Your task to perform on an android device: Open Android settings Image 0: 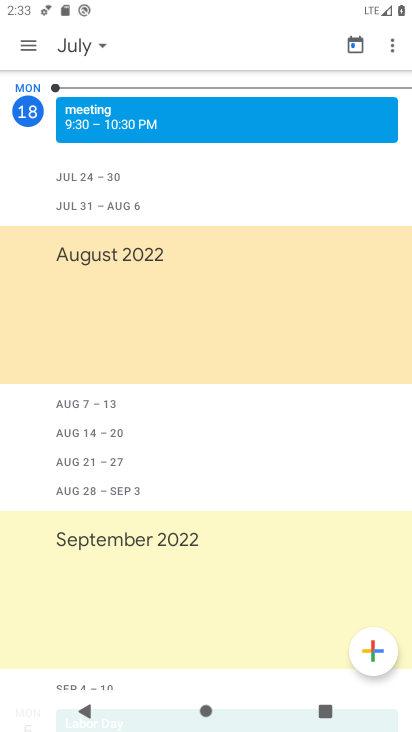
Step 0: press home button
Your task to perform on an android device: Open Android settings Image 1: 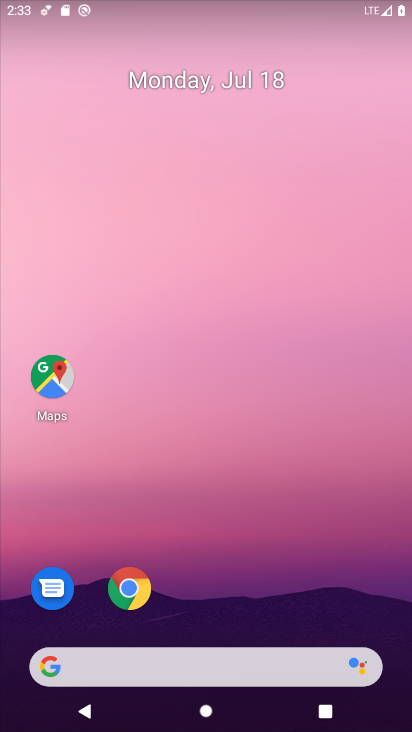
Step 1: drag from (310, 598) to (243, 142)
Your task to perform on an android device: Open Android settings Image 2: 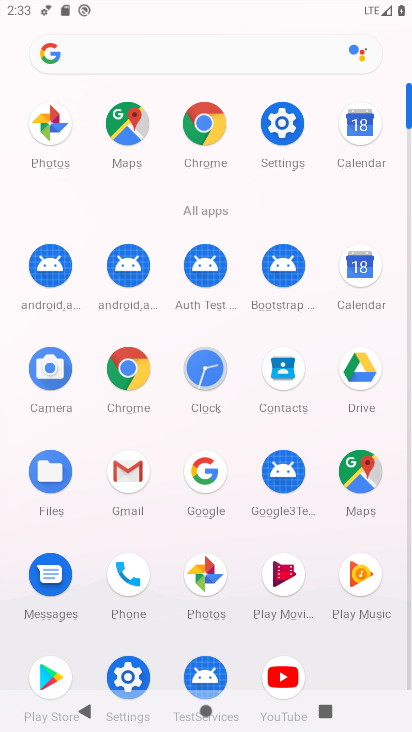
Step 2: click (285, 133)
Your task to perform on an android device: Open Android settings Image 3: 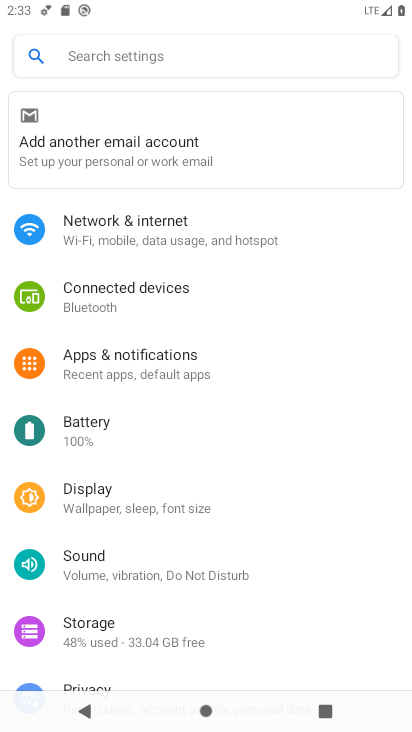
Step 3: task complete